Your task to perform on an android device: Show me popular games on the Play Store Image 0: 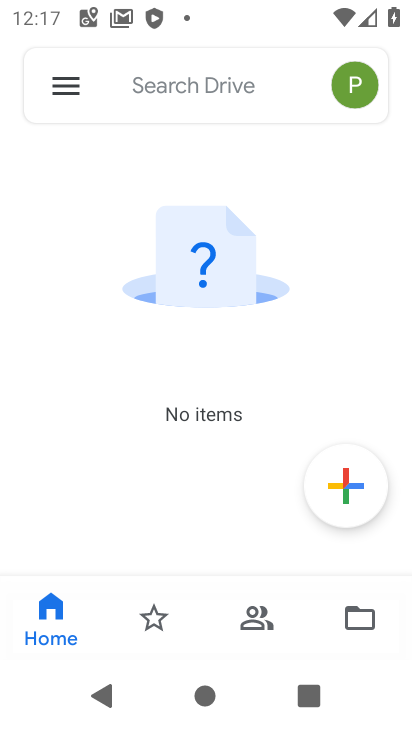
Step 0: press back button
Your task to perform on an android device: Show me popular games on the Play Store Image 1: 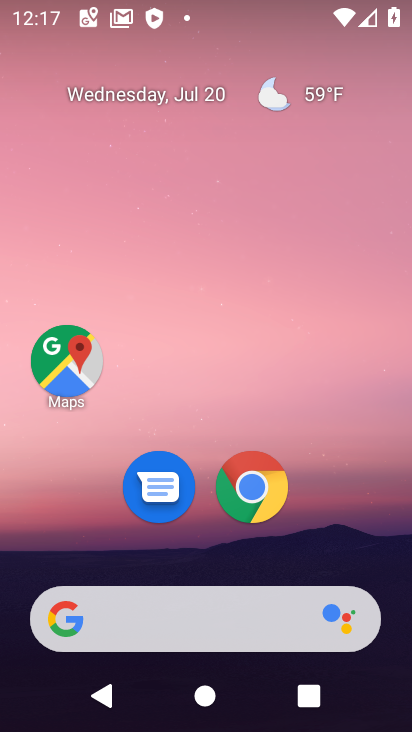
Step 1: drag from (194, 566) to (265, 0)
Your task to perform on an android device: Show me popular games on the Play Store Image 2: 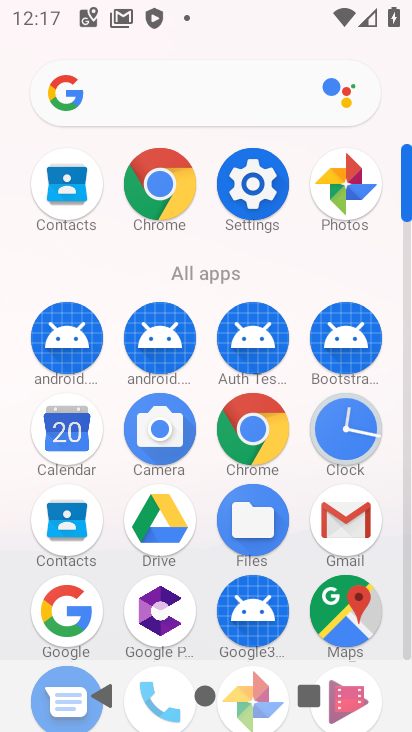
Step 2: drag from (183, 622) to (302, 92)
Your task to perform on an android device: Show me popular games on the Play Store Image 3: 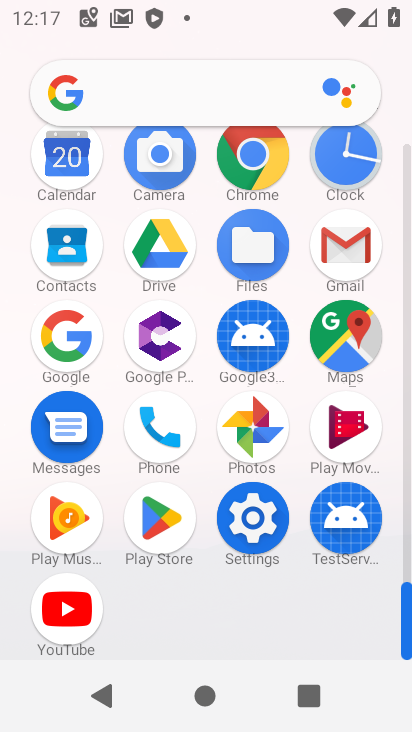
Step 3: click (163, 536)
Your task to perform on an android device: Show me popular games on the Play Store Image 4: 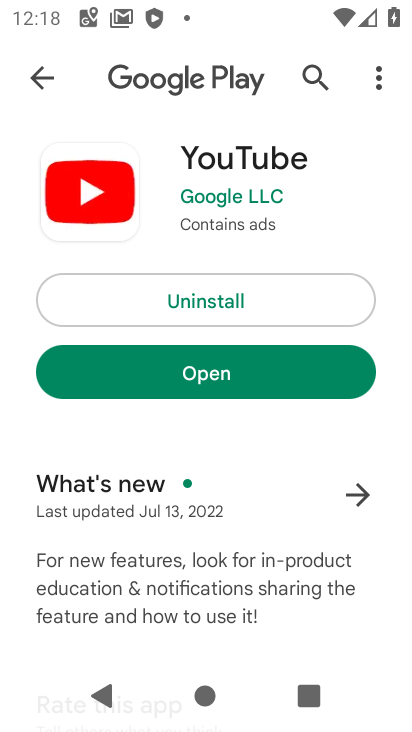
Step 4: click (38, 68)
Your task to perform on an android device: Show me popular games on the Play Store Image 5: 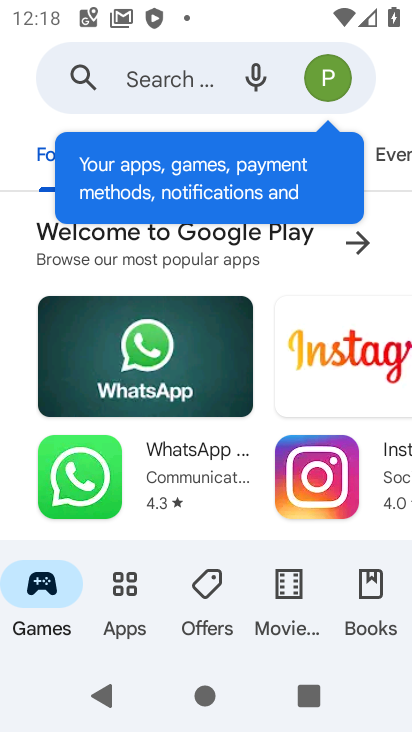
Step 5: drag from (210, 528) to (250, 24)
Your task to perform on an android device: Show me popular games on the Play Store Image 6: 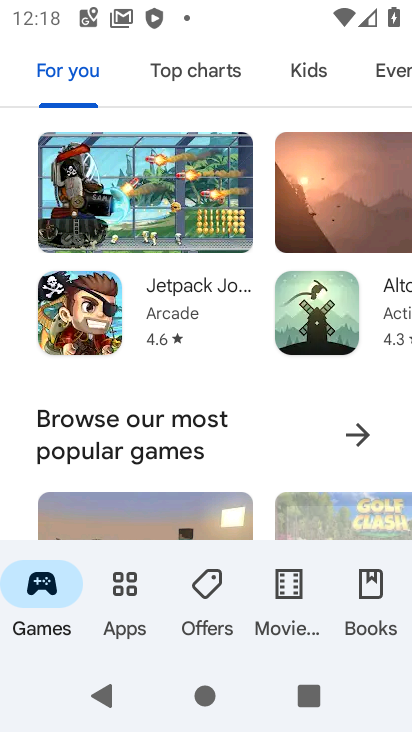
Step 6: drag from (197, 420) to (211, 246)
Your task to perform on an android device: Show me popular games on the Play Store Image 7: 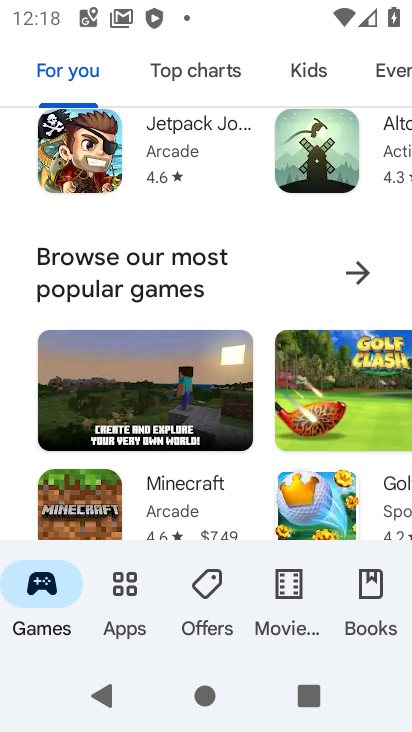
Step 7: click (351, 261)
Your task to perform on an android device: Show me popular games on the Play Store Image 8: 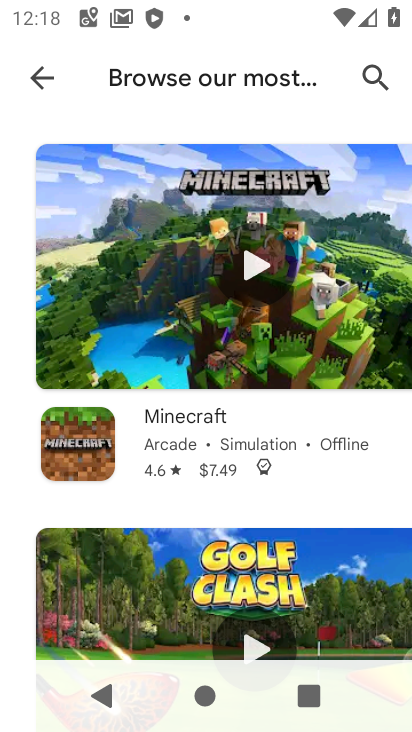
Step 8: task complete